Your task to perform on an android device: Open Google Maps and go to "Timeline" Image 0: 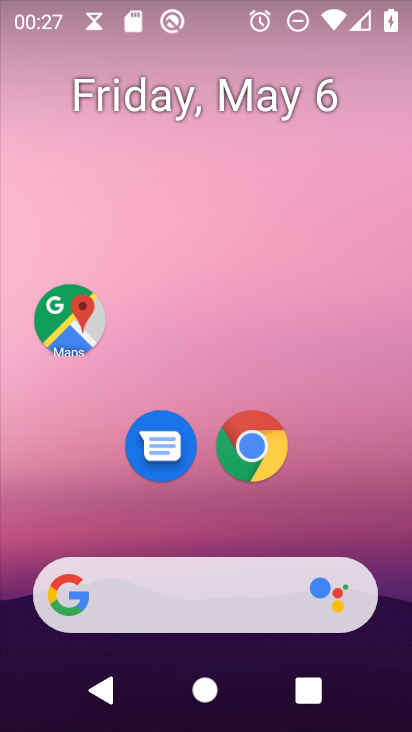
Step 0: drag from (240, 638) to (266, 190)
Your task to perform on an android device: Open Google Maps and go to "Timeline" Image 1: 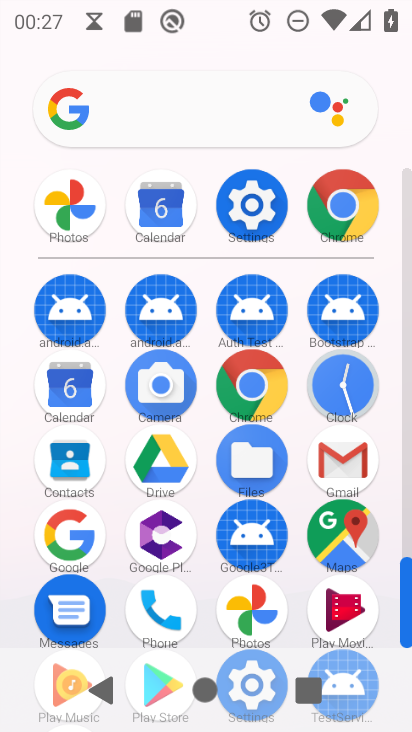
Step 1: click (353, 531)
Your task to perform on an android device: Open Google Maps and go to "Timeline" Image 2: 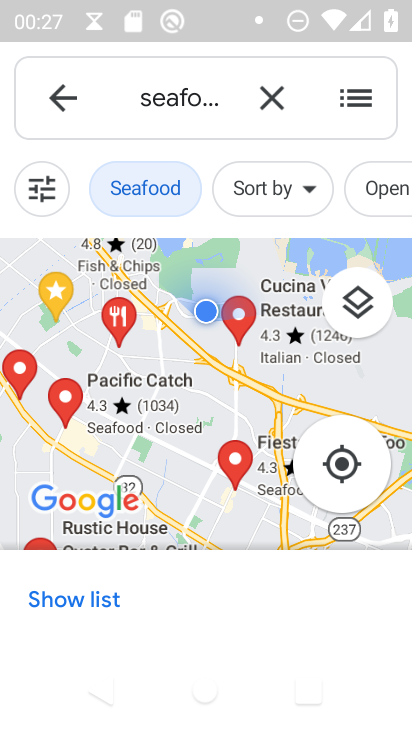
Step 2: click (58, 97)
Your task to perform on an android device: Open Google Maps and go to "Timeline" Image 3: 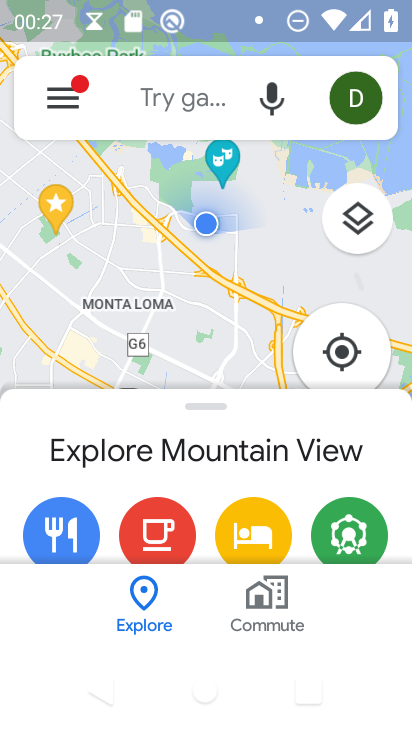
Step 3: click (59, 100)
Your task to perform on an android device: Open Google Maps and go to "Timeline" Image 4: 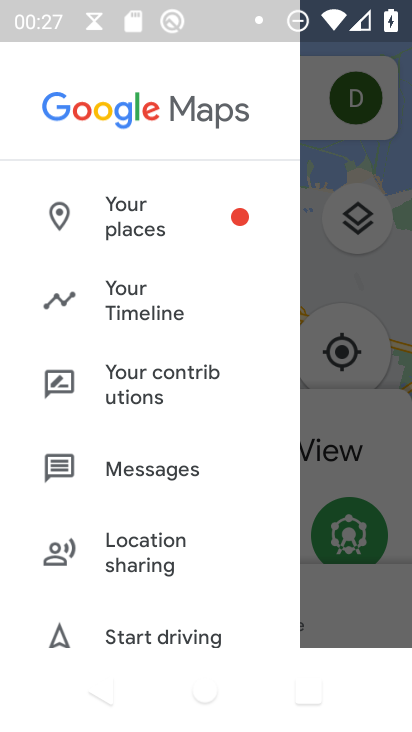
Step 4: click (154, 293)
Your task to perform on an android device: Open Google Maps and go to "Timeline" Image 5: 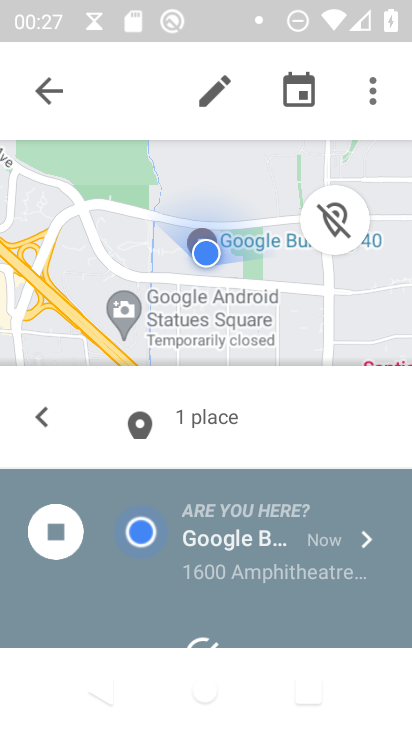
Step 5: task complete